Your task to perform on an android device: check android version Image 0: 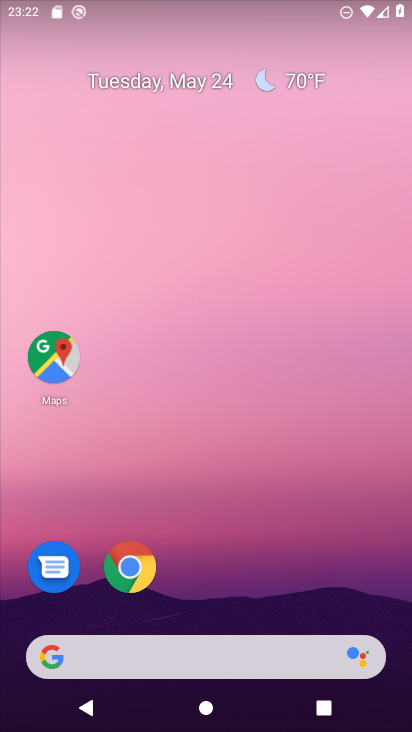
Step 0: drag from (294, 586) to (222, 1)
Your task to perform on an android device: check android version Image 1: 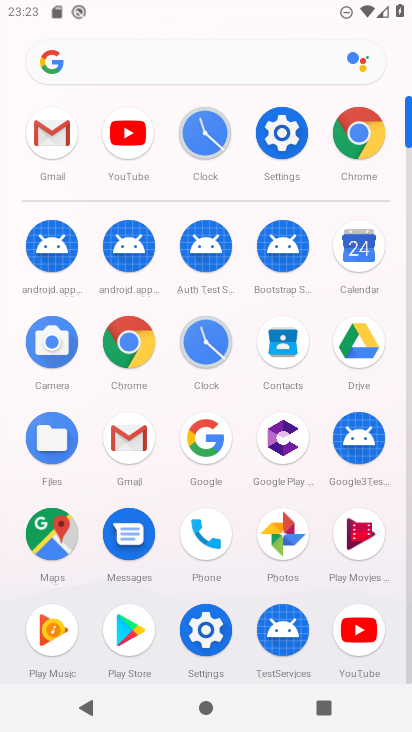
Step 1: click (295, 137)
Your task to perform on an android device: check android version Image 2: 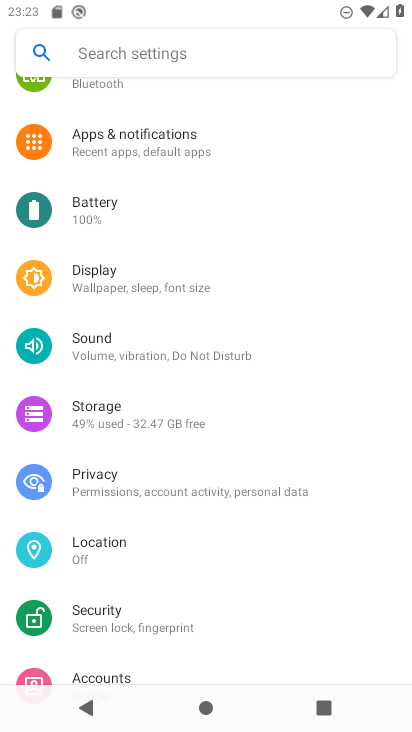
Step 2: drag from (229, 591) to (229, 4)
Your task to perform on an android device: check android version Image 3: 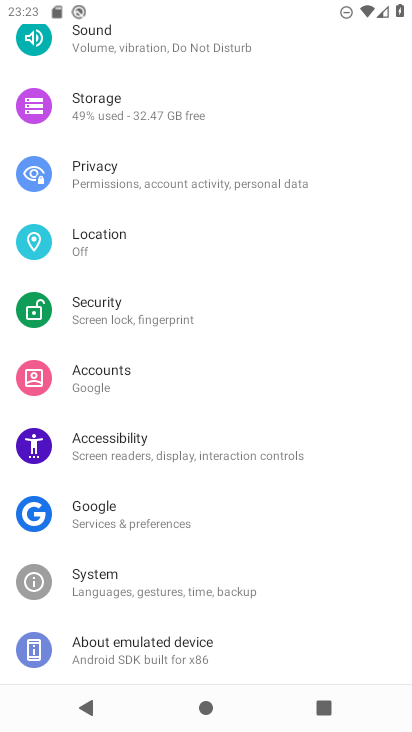
Step 3: click (205, 642)
Your task to perform on an android device: check android version Image 4: 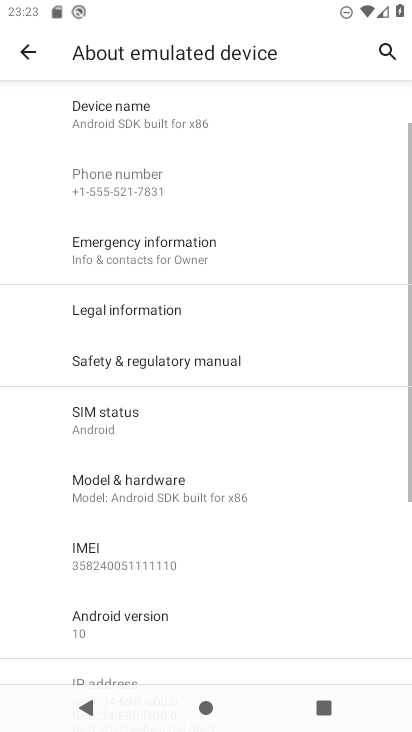
Step 4: click (198, 618)
Your task to perform on an android device: check android version Image 5: 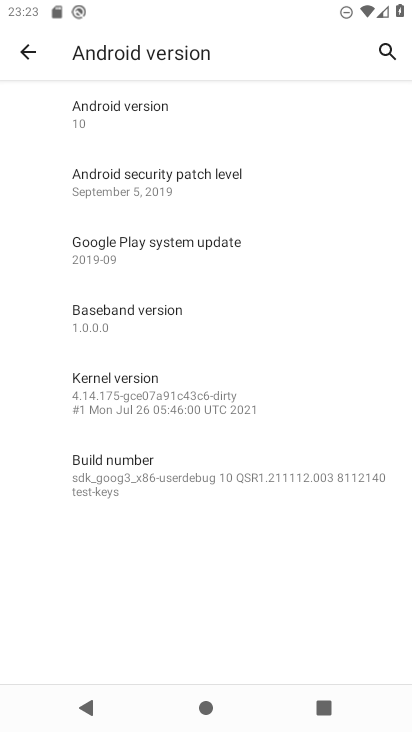
Step 5: task complete